Your task to perform on an android device: What's on my calendar tomorrow? Image 0: 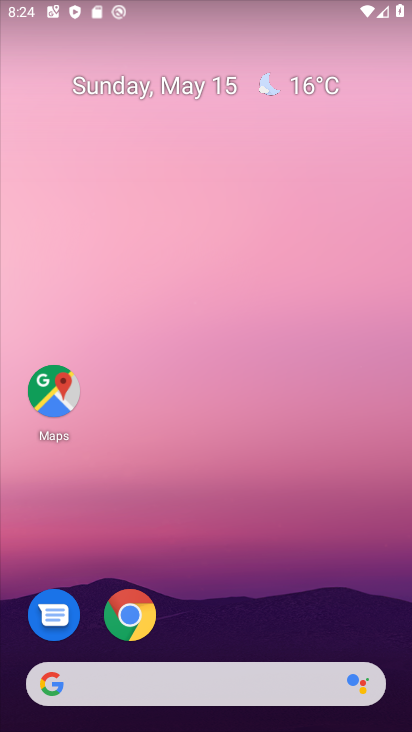
Step 0: drag from (252, 609) to (258, 101)
Your task to perform on an android device: What's on my calendar tomorrow? Image 1: 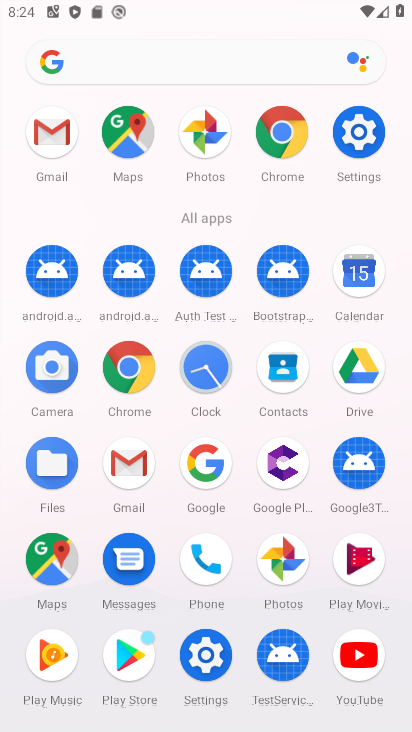
Step 1: click (360, 263)
Your task to perform on an android device: What's on my calendar tomorrow? Image 2: 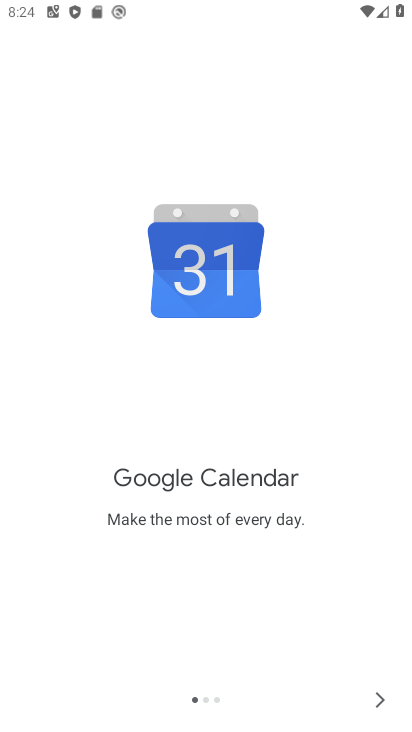
Step 2: click (379, 700)
Your task to perform on an android device: What's on my calendar tomorrow? Image 3: 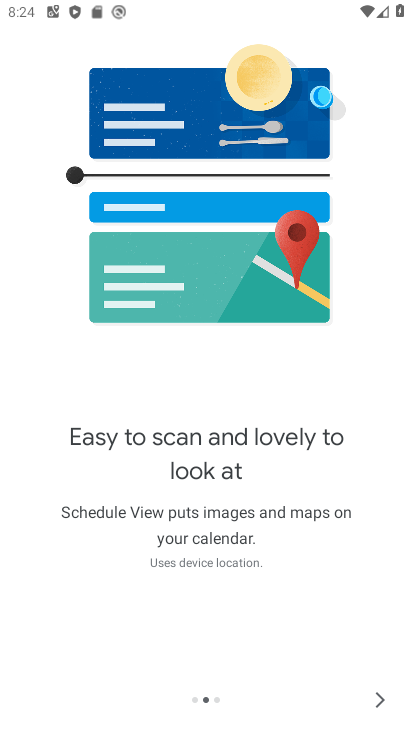
Step 3: click (379, 698)
Your task to perform on an android device: What's on my calendar tomorrow? Image 4: 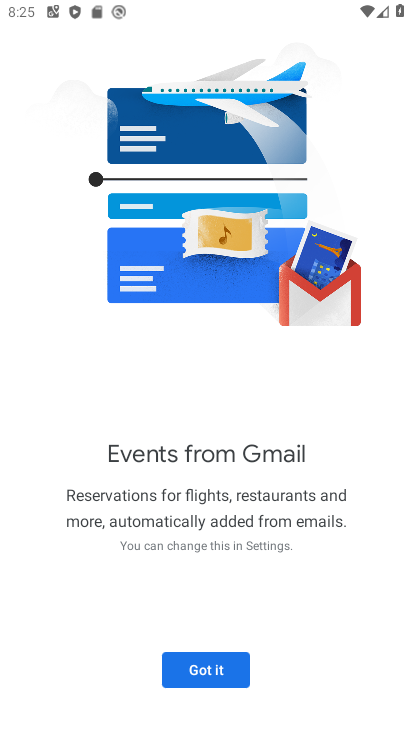
Step 4: click (200, 662)
Your task to perform on an android device: What's on my calendar tomorrow? Image 5: 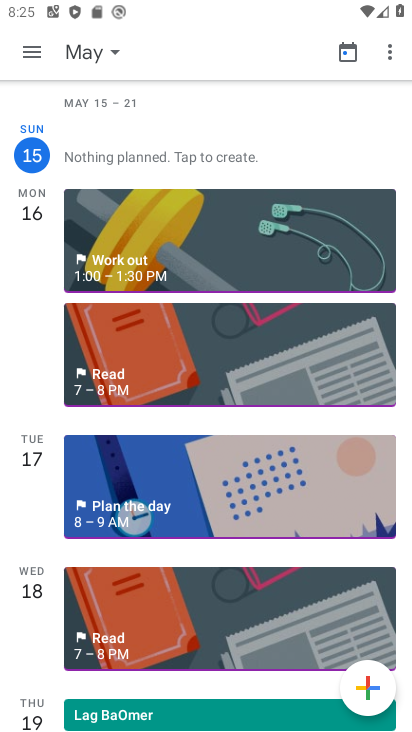
Step 5: click (31, 43)
Your task to perform on an android device: What's on my calendar tomorrow? Image 6: 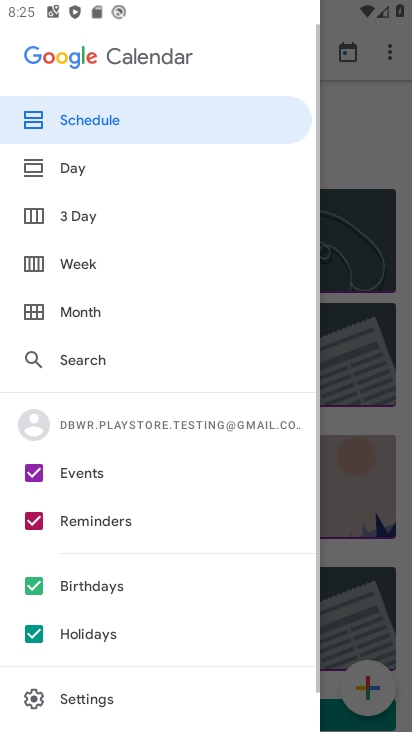
Step 6: click (101, 175)
Your task to perform on an android device: What's on my calendar tomorrow? Image 7: 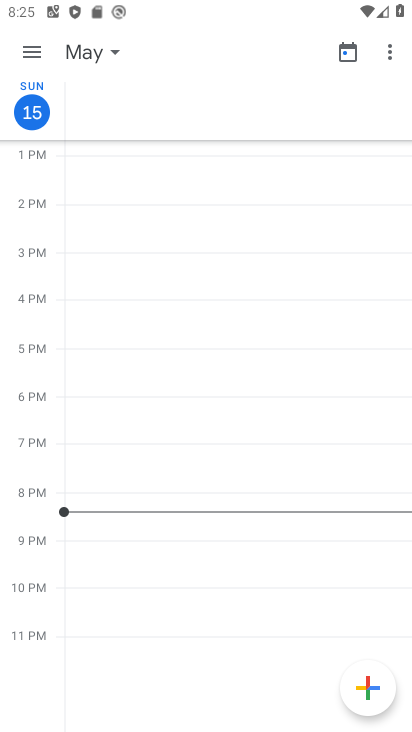
Step 7: click (102, 49)
Your task to perform on an android device: What's on my calendar tomorrow? Image 8: 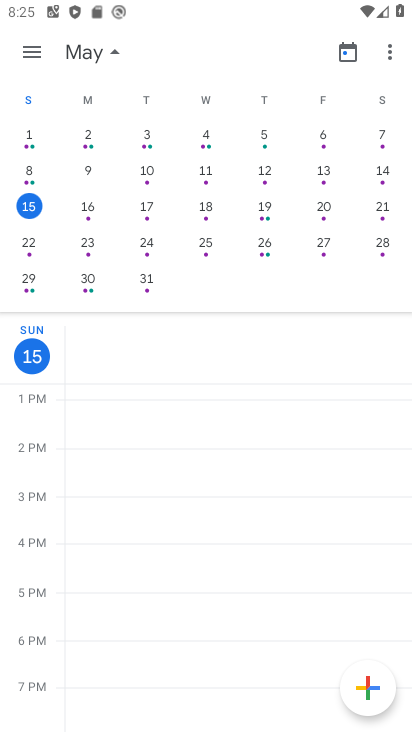
Step 8: click (84, 204)
Your task to perform on an android device: What's on my calendar tomorrow? Image 9: 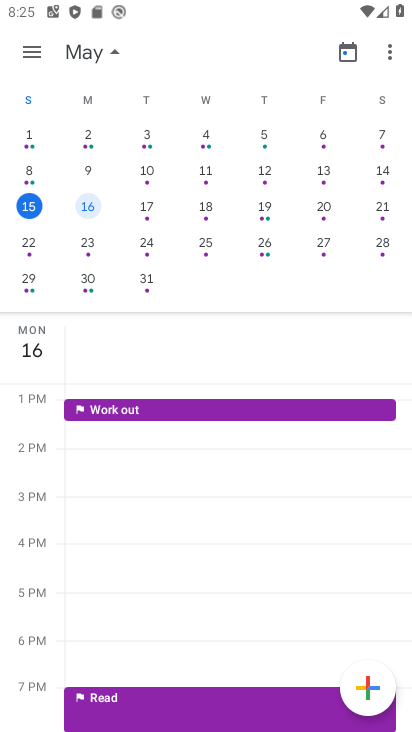
Step 9: task complete